Your task to perform on an android device: add a contact Image 0: 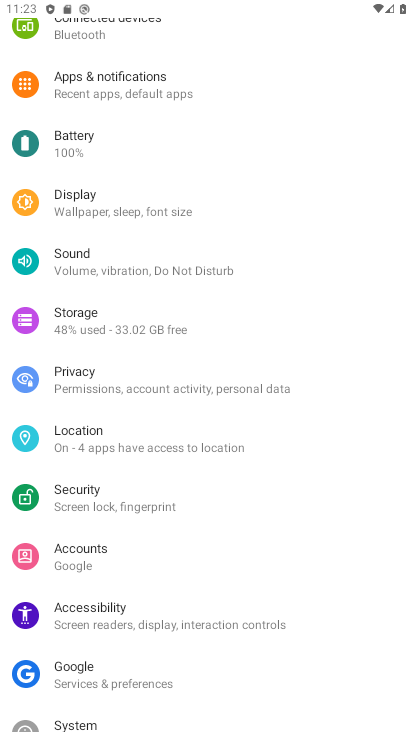
Step 0: press home button
Your task to perform on an android device: add a contact Image 1: 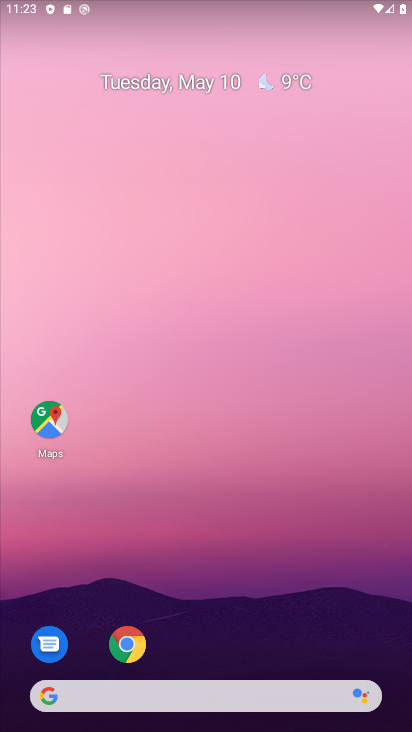
Step 1: drag from (231, 622) to (303, 218)
Your task to perform on an android device: add a contact Image 2: 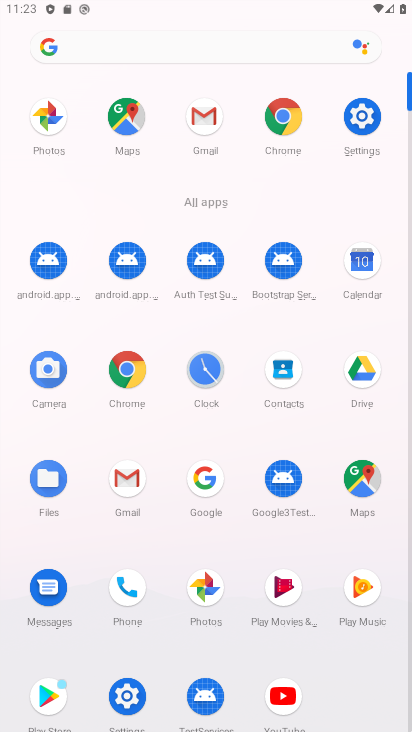
Step 2: click (277, 382)
Your task to perform on an android device: add a contact Image 3: 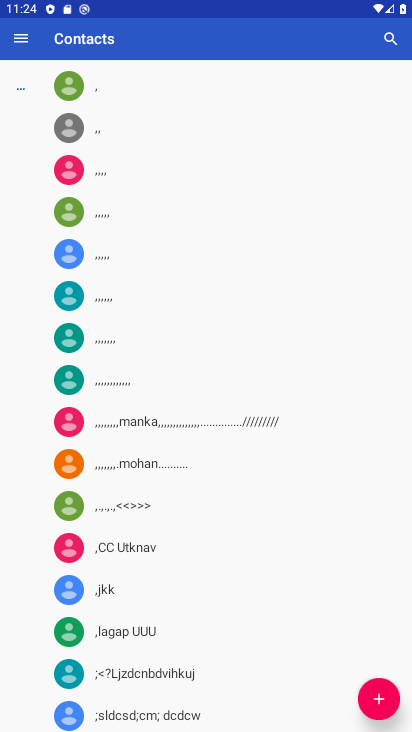
Step 3: click (383, 697)
Your task to perform on an android device: add a contact Image 4: 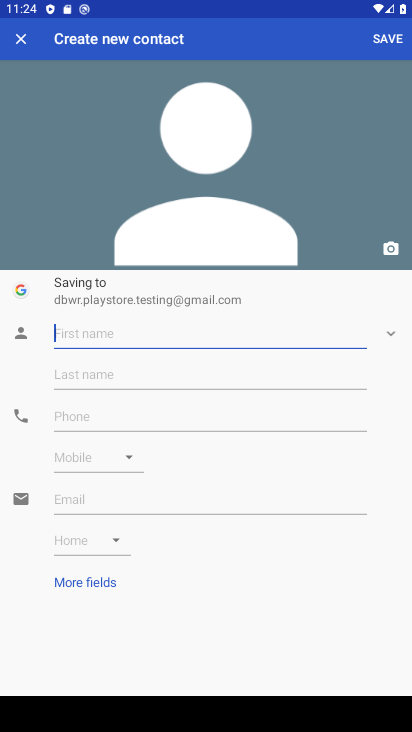
Step 4: type "imposter"
Your task to perform on an android device: add a contact Image 5: 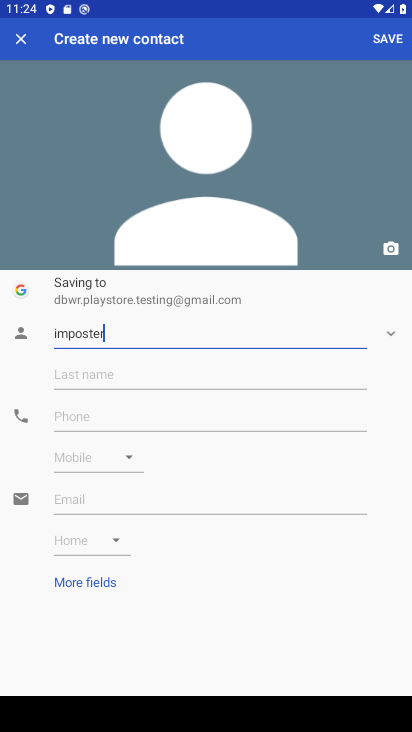
Step 5: click (384, 36)
Your task to perform on an android device: add a contact Image 6: 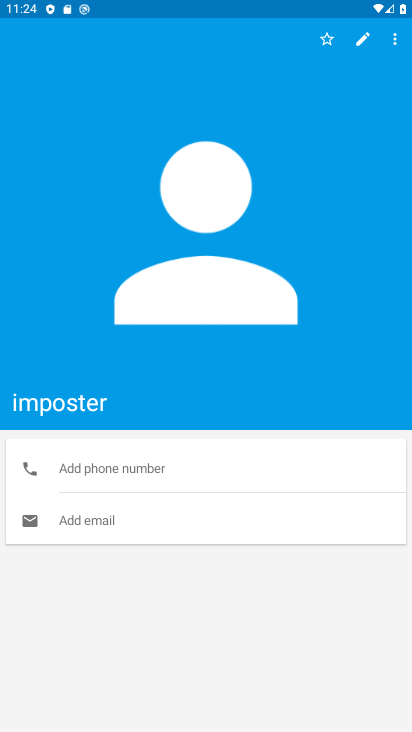
Step 6: task complete